Your task to perform on an android device: turn on airplane mode Image 0: 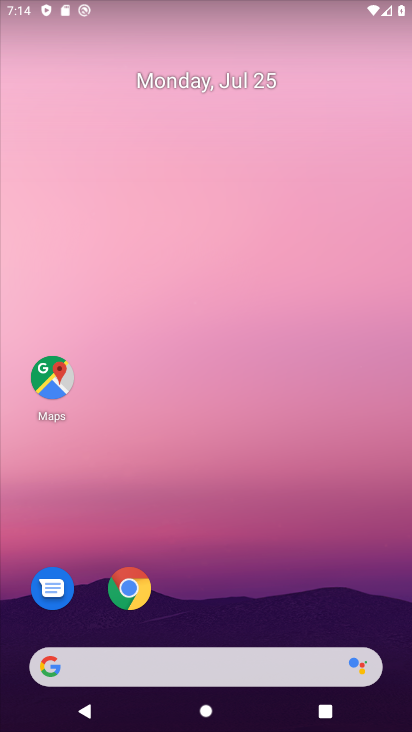
Step 0: drag from (332, 1) to (308, 310)
Your task to perform on an android device: turn on airplane mode Image 1: 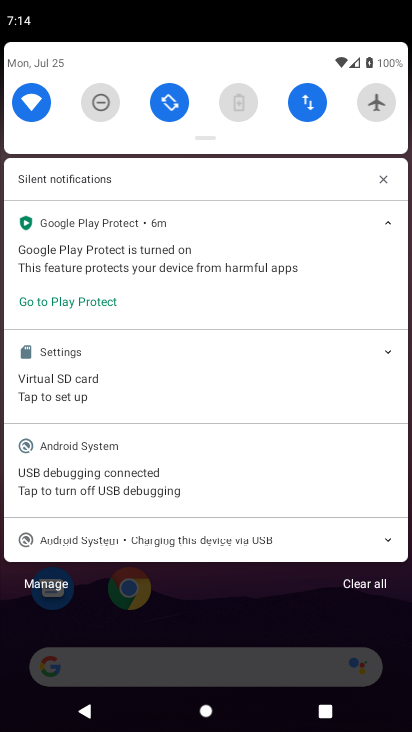
Step 1: click (371, 104)
Your task to perform on an android device: turn on airplane mode Image 2: 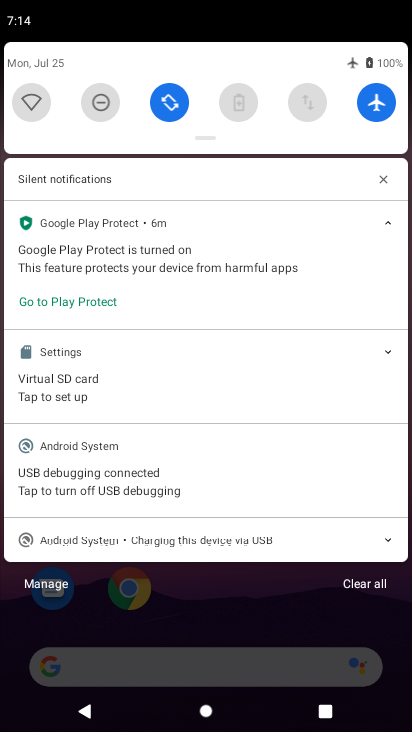
Step 2: task complete